Your task to perform on an android device: check data usage Image 0: 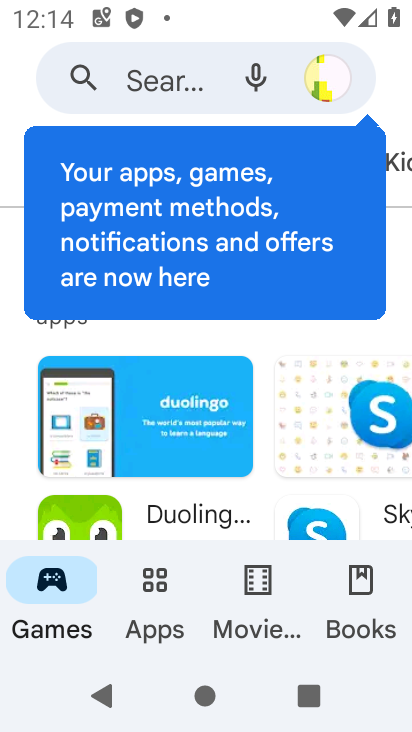
Step 0: press home button
Your task to perform on an android device: check data usage Image 1: 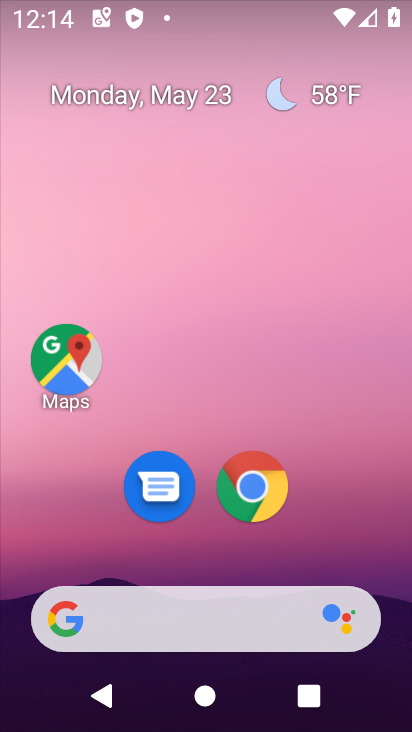
Step 1: drag from (398, 605) to (331, 55)
Your task to perform on an android device: check data usage Image 2: 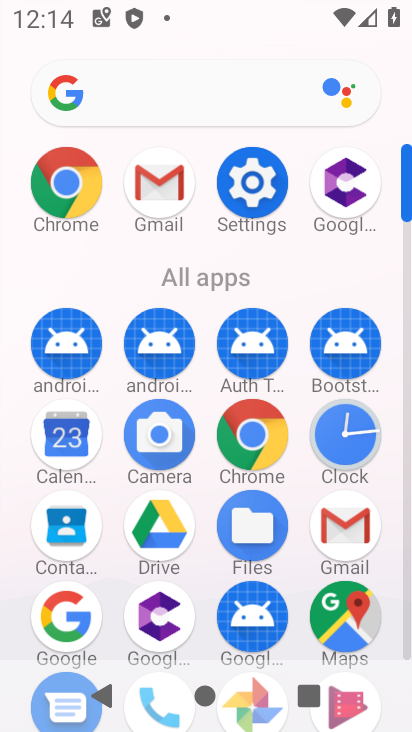
Step 2: click (402, 633)
Your task to perform on an android device: check data usage Image 3: 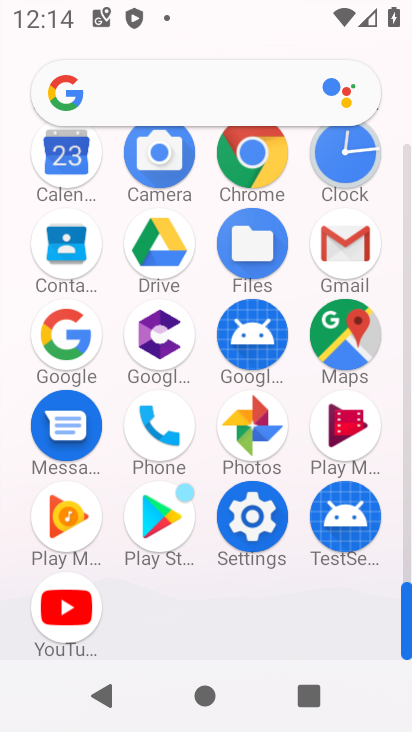
Step 3: click (251, 517)
Your task to perform on an android device: check data usage Image 4: 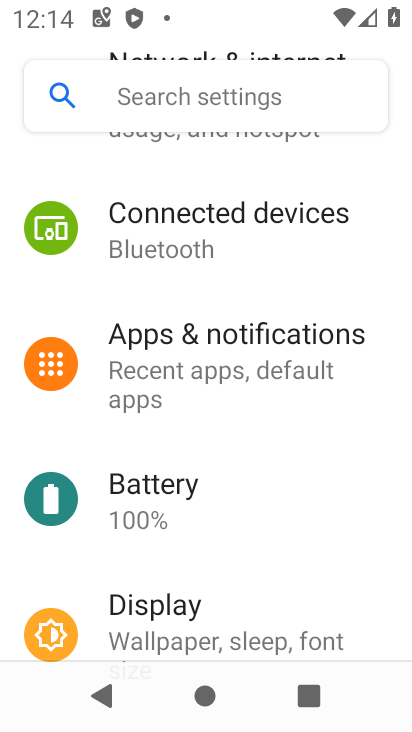
Step 4: drag from (333, 195) to (321, 563)
Your task to perform on an android device: check data usage Image 5: 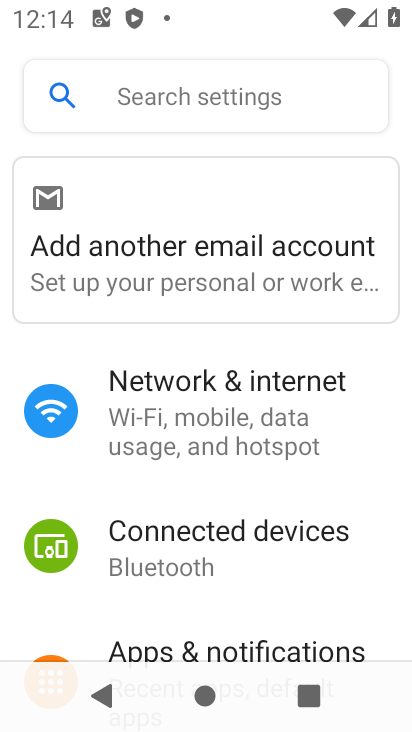
Step 5: click (171, 392)
Your task to perform on an android device: check data usage Image 6: 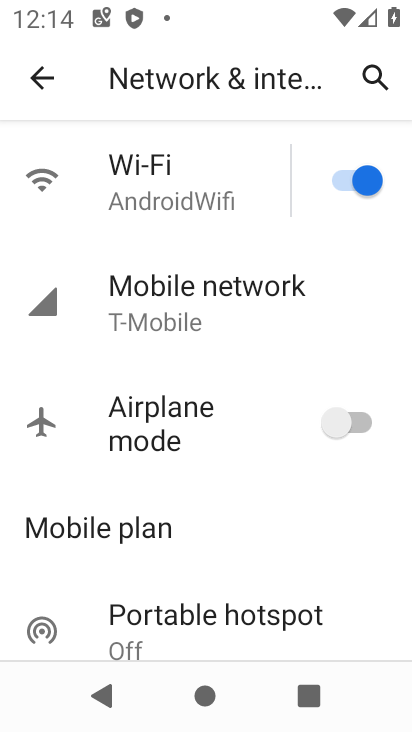
Step 6: click (180, 291)
Your task to perform on an android device: check data usage Image 7: 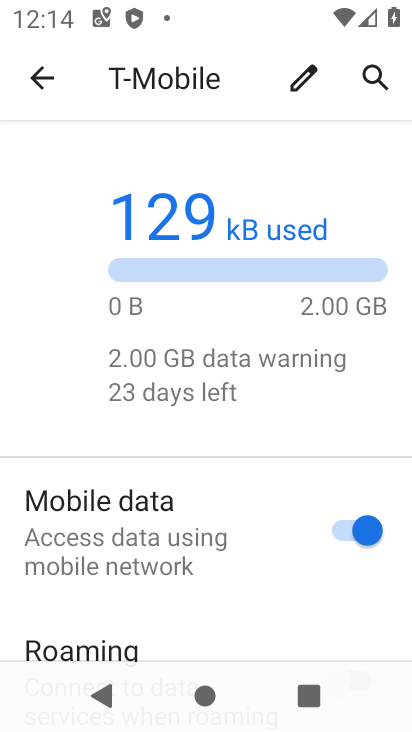
Step 7: task complete